Your task to perform on an android device: Open calendar and show me the first week of next month Image 0: 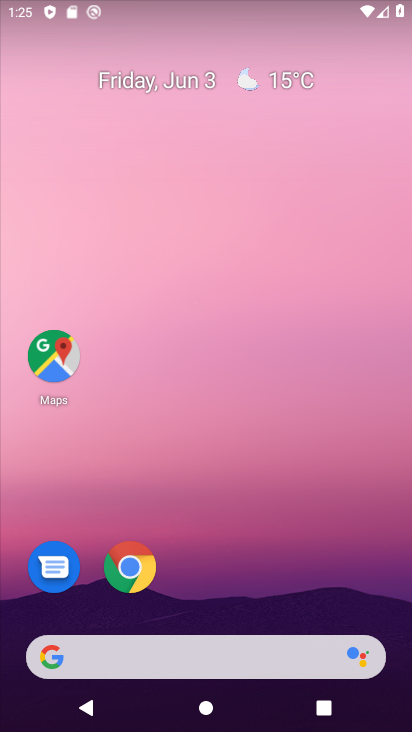
Step 0: drag from (173, 629) to (217, 157)
Your task to perform on an android device: Open calendar and show me the first week of next month Image 1: 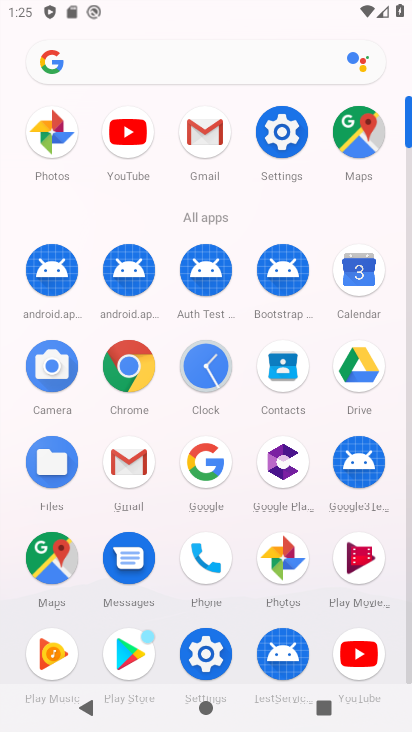
Step 1: click (352, 270)
Your task to perform on an android device: Open calendar and show me the first week of next month Image 2: 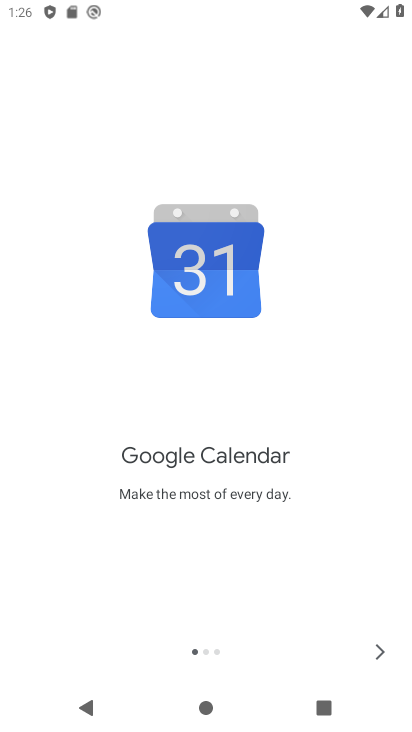
Step 2: click (352, 270)
Your task to perform on an android device: Open calendar and show me the first week of next month Image 3: 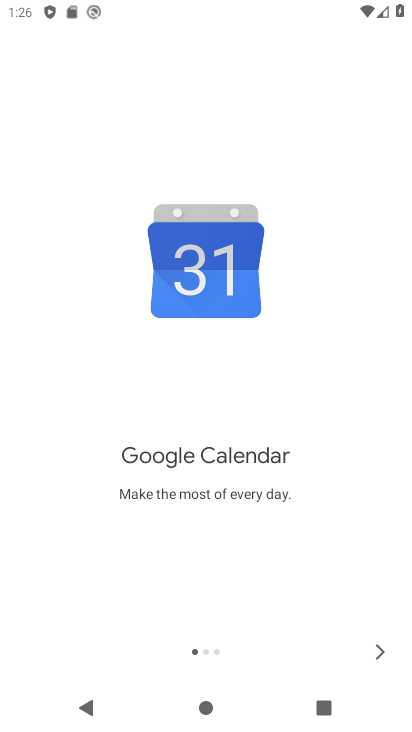
Step 3: click (380, 652)
Your task to perform on an android device: Open calendar and show me the first week of next month Image 4: 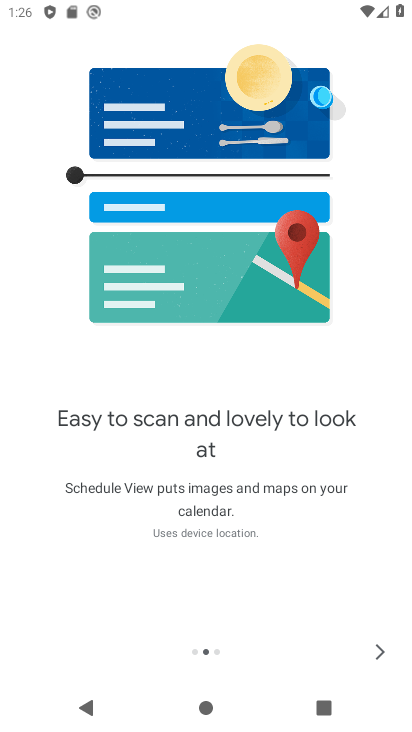
Step 4: click (380, 652)
Your task to perform on an android device: Open calendar and show me the first week of next month Image 5: 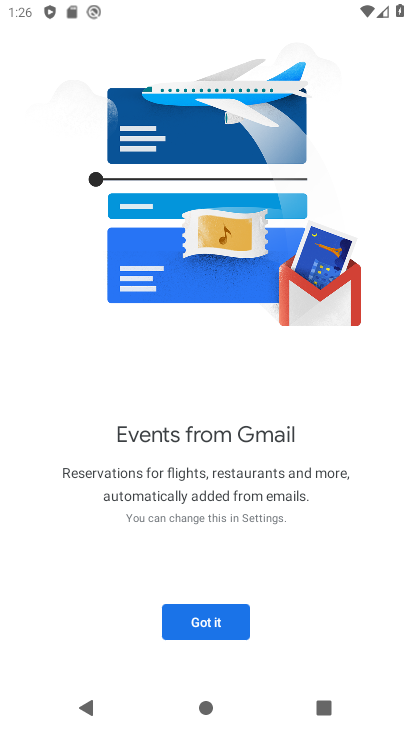
Step 5: click (221, 618)
Your task to perform on an android device: Open calendar and show me the first week of next month Image 6: 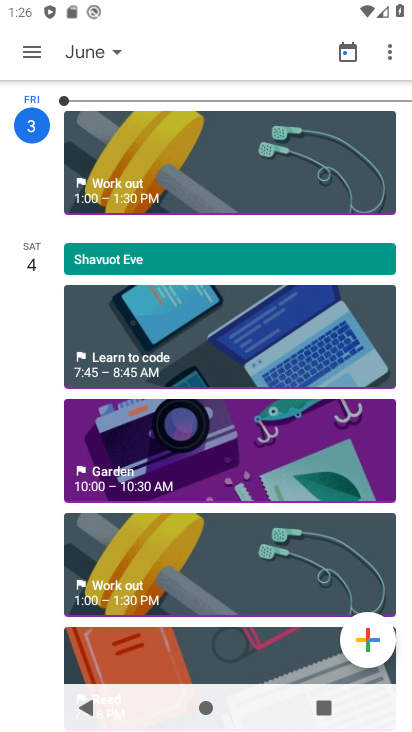
Step 6: click (89, 45)
Your task to perform on an android device: Open calendar and show me the first week of next month Image 7: 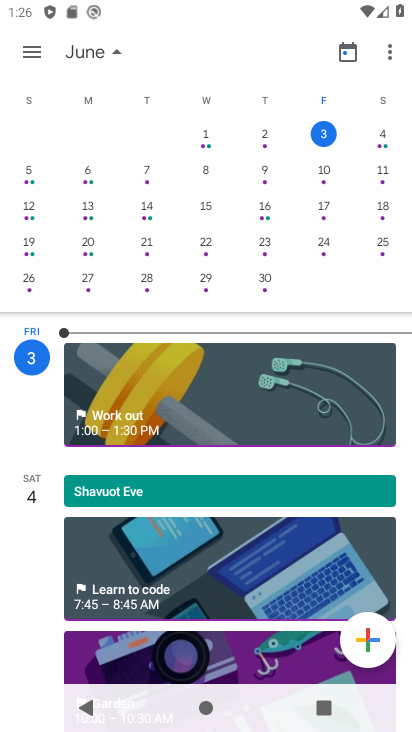
Step 7: drag from (319, 235) to (13, 233)
Your task to perform on an android device: Open calendar and show me the first week of next month Image 8: 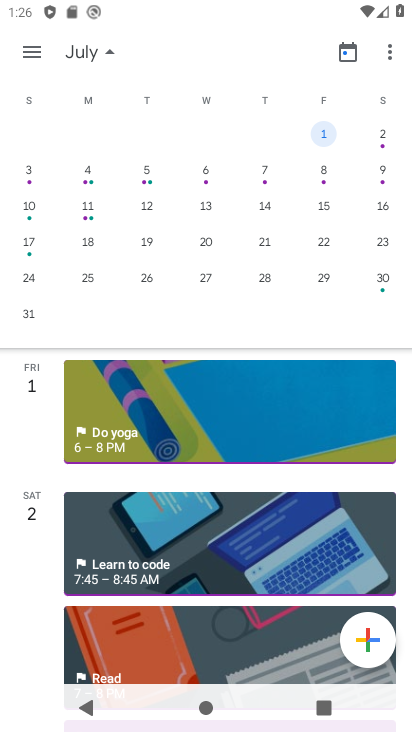
Step 8: click (330, 129)
Your task to perform on an android device: Open calendar and show me the first week of next month Image 9: 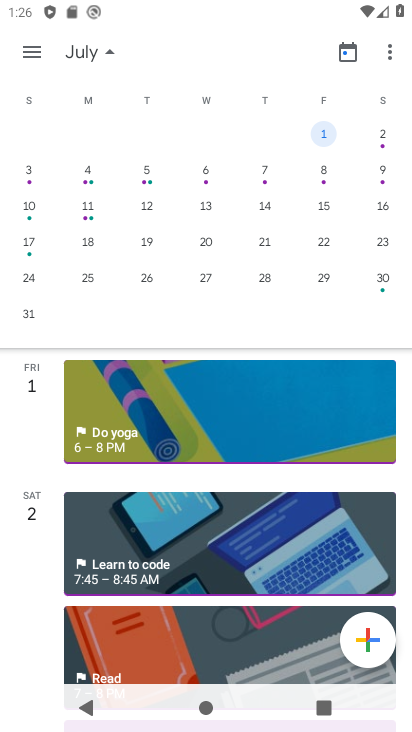
Step 9: task complete